Your task to perform on an android device: toggle show notifications on the lock screen Image 0: 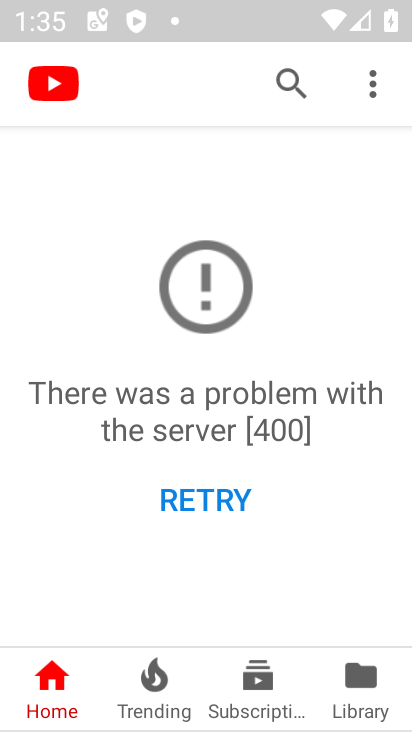
Step 0: press home button
Your task to perform on an android device: toggle show notifications on the lock screen Image 1: 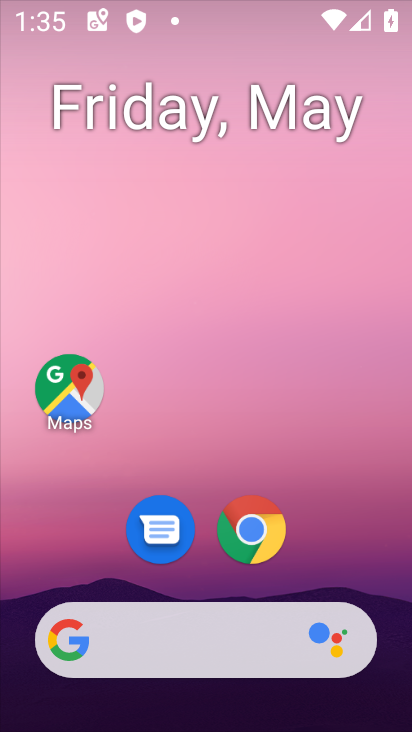
Step 1: drag from (298, 585) to (260, 0)
Your task to perform on an android device: toggle show notifications on the lock screen Image 2: 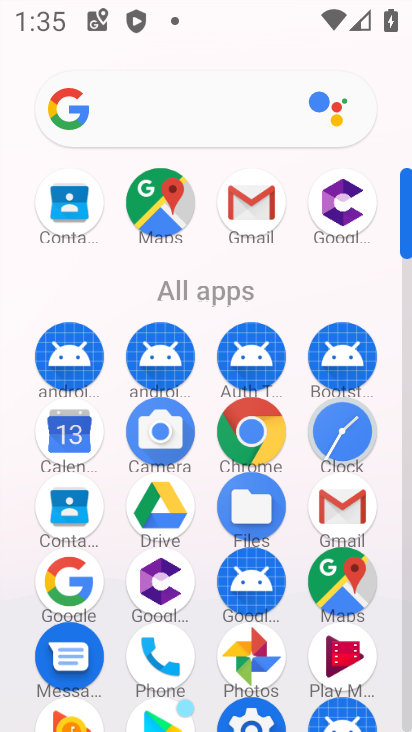
Step 2: drag from (249, 687) to (336, 101)
Your task to perform on an android device: toggle show notifications on the lock screen Image 3: 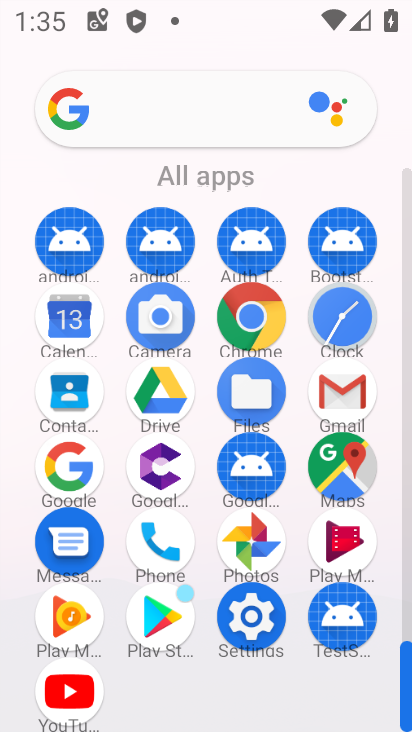
Step 3: click (237, 631)
Your task to perform on an android device: toggle show notifications on the lock screen Image 4: 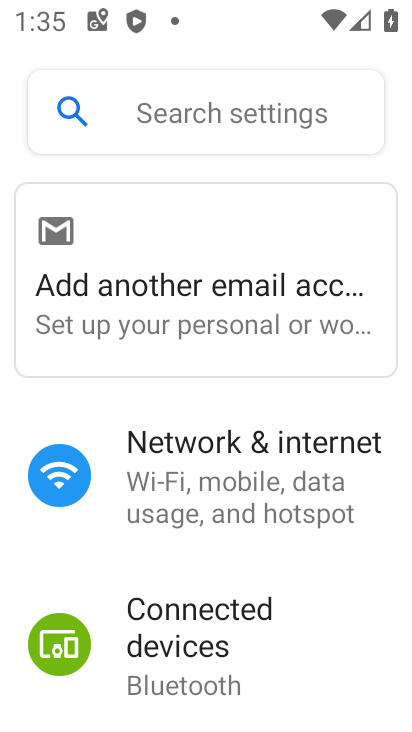
Step 4: drag from (264, 639) to (324, 309)
Your task to perform on an android device: toggle show notifications on the lock screen Image 5: 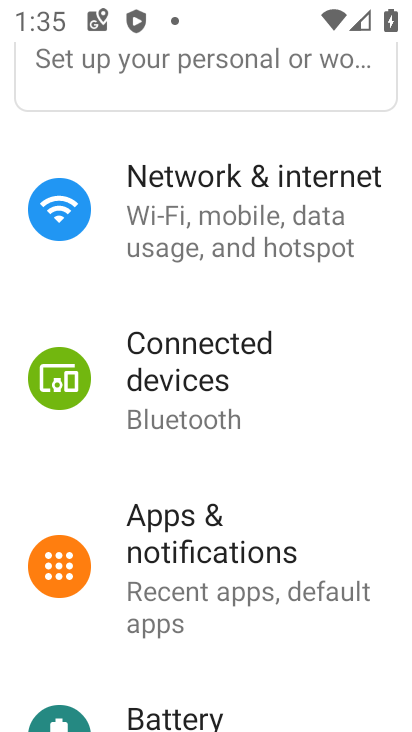
Step 5: drag from (309, 300) to (249, 495)
Your task to perform on an android device: toggle show notifications on the lock screen Image 6: 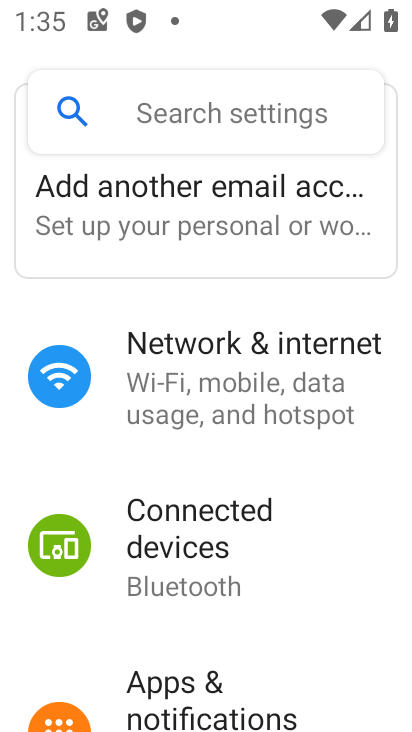
Step 6: click (180, 688)
Your task to perform on an android device: toggle show notifications on the lock screen Image 7: 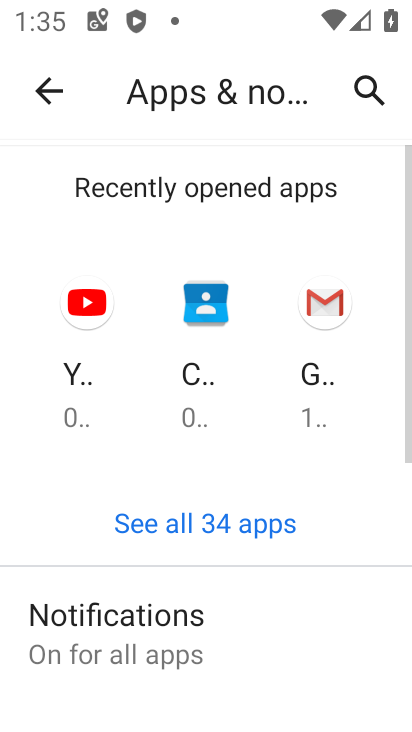
Step 7: click (256, 413)
Your task to perform on an android device: toggle show notifications on the lock screen Image 8: 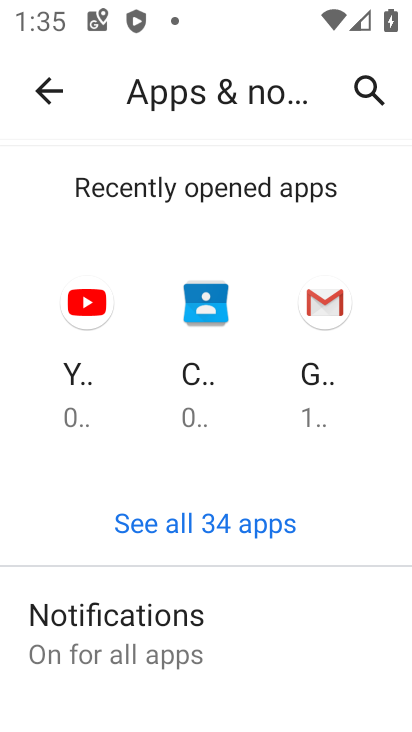
Step 8: drag from (213, 513) to (211, 383)
Your task to perform on an android device: toggle show notifications on the lock screen Image 9: 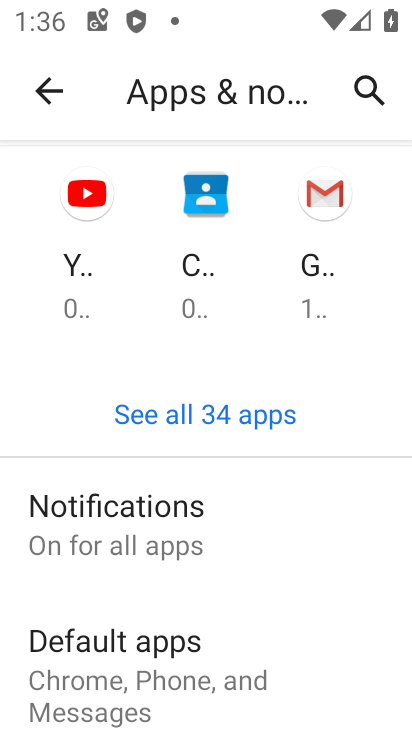
Step 9: click (170, 542)
Your task to perform on an android device: toggle show notifications on the lock screen Image 10: 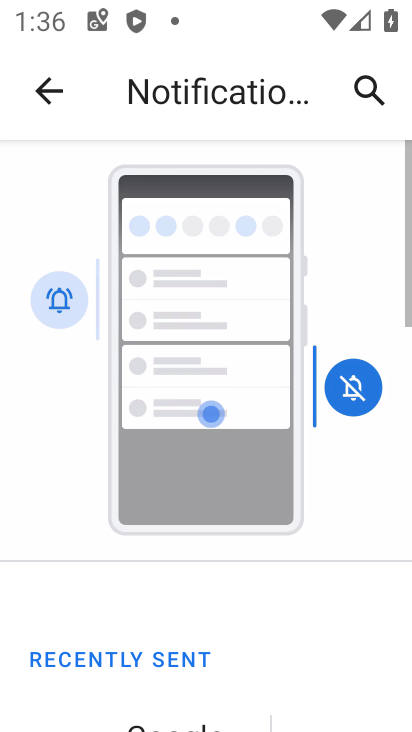
Step 10: drag from (156, 662) to (233, 110)
Your task to perform on an android device: toggle show notifications on the lock screen Image 11: 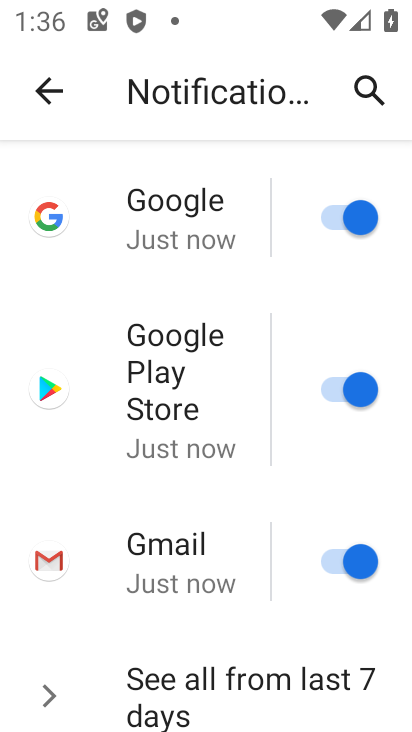
Step 11: drag from (185, 602) to (233, 93)
Your task to perform on an android device: toggle show notifications on the lock screen Image 12: 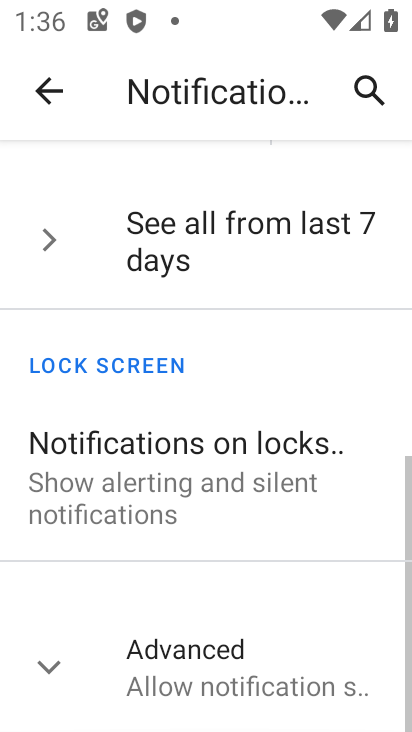
Step 12: drag from (262, 704) to (254, 195)
Your task to perform on an android device: toggle show notifications on the lock screen Image 13: 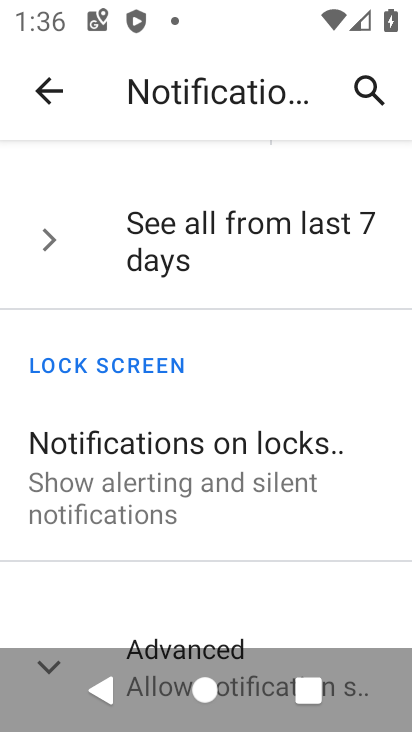
Step 13: click (159, 507)
Your task to perform on an android device: toggle show notifications on the lock screen Image 14: 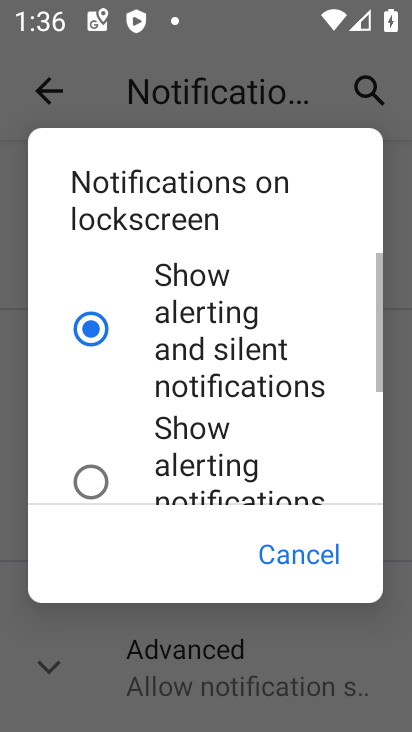
Step 14: click (99, 483)
Your task to perform on an android device: toggle show notifications on the lock screen Image 15: 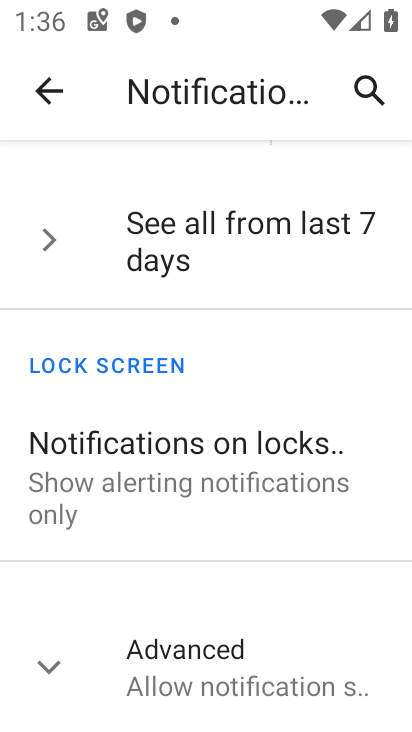
Step 15: task complete